Your task to perform on an android device: Open Maps and search for coffee Image 0: 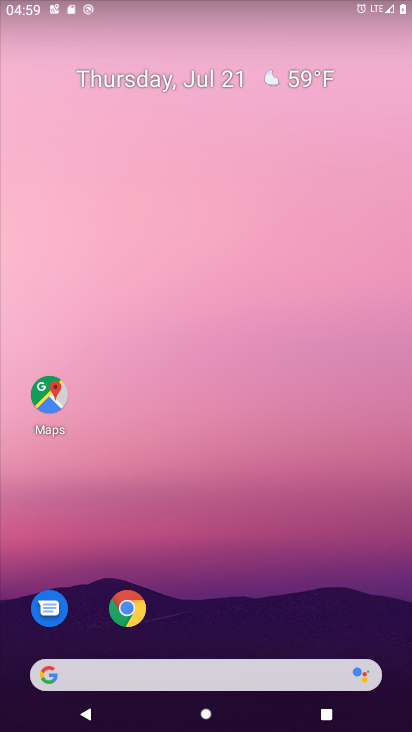
Step 0: task complete